Your task to perform on an android device: open a bookmark in the chrome app Image 0: 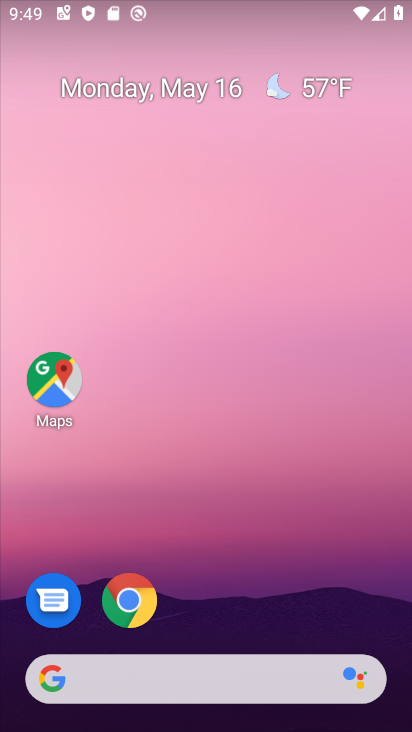
Step 0: drag from (317, 596) to (264, 230)
Your task to perform on an android device: open a bookmark in the chrome app Image 1: 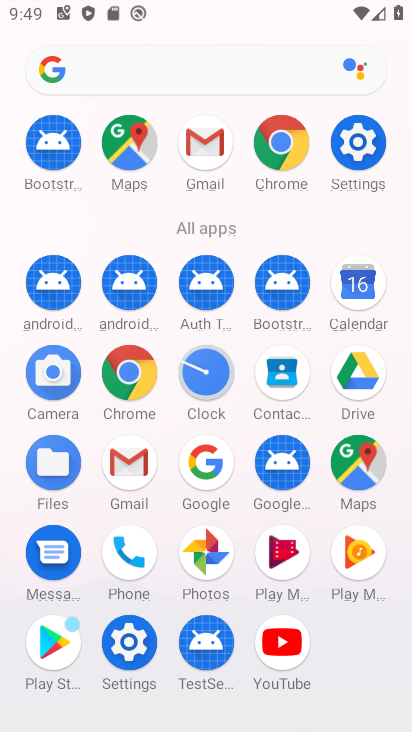
Step 1: click (128, 385)
Your task to perform on an android device: open a bookmark in the chrome app Image 2: 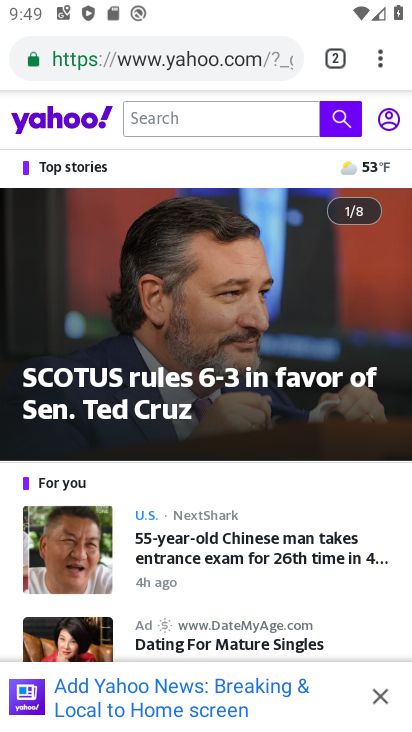
Step 2: task complete